Your task to perform on an android device: check the backup settings in the google photos Image 0: 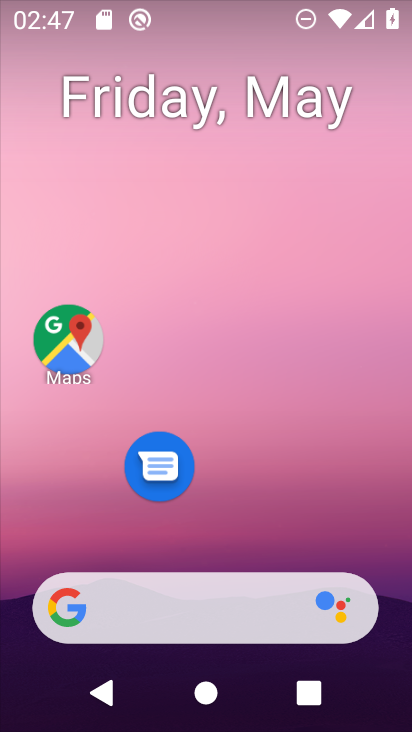
Step 0: drag from (368, 493) to (147, 12)
Your task to perform on an android device: check the backup settings in the google photos Image 1: 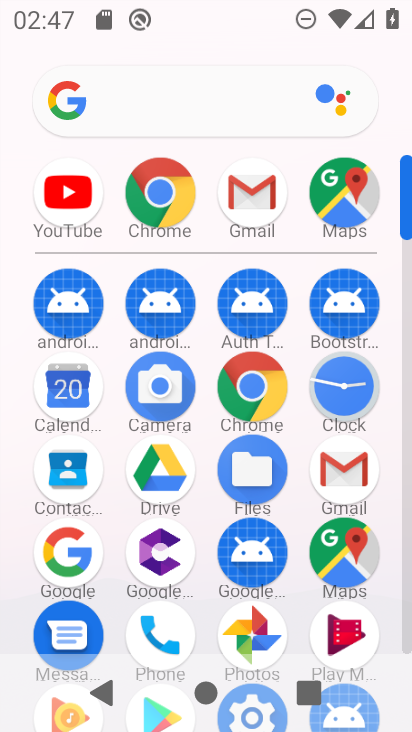
Step 1: click (402, 633)
Your task to perform on an android device: check the backup settings in the google photos Image 2: 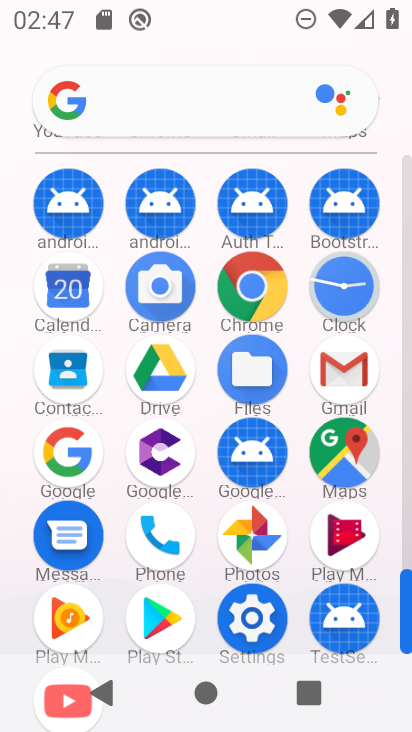
Step 2: click (283, 629)
Your task to perform on an android device: check the backup settings in the google photos Image 3: 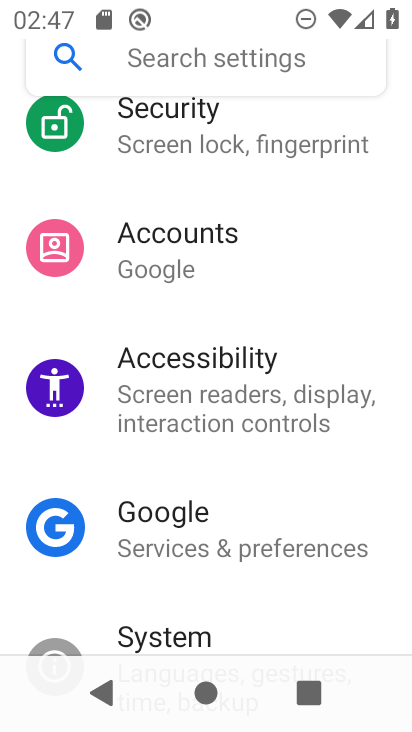
Step 3: task complete